Your task to perform on an android device: turn off notifications in google photos Image 0: 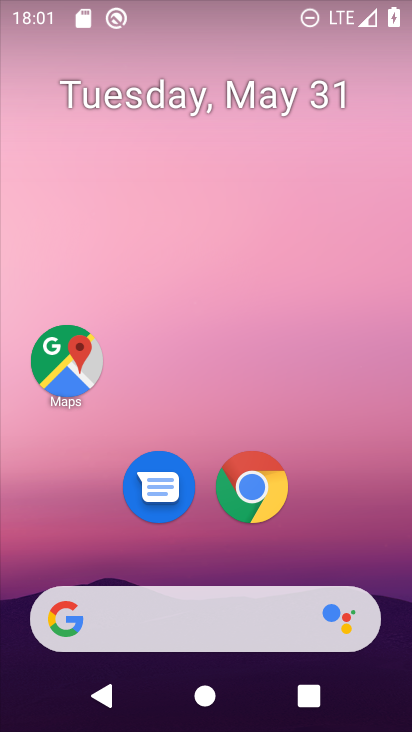
Step 0: click (232, 104)
Your task to perform on an android device: turn off notifications in google photos Image 1: 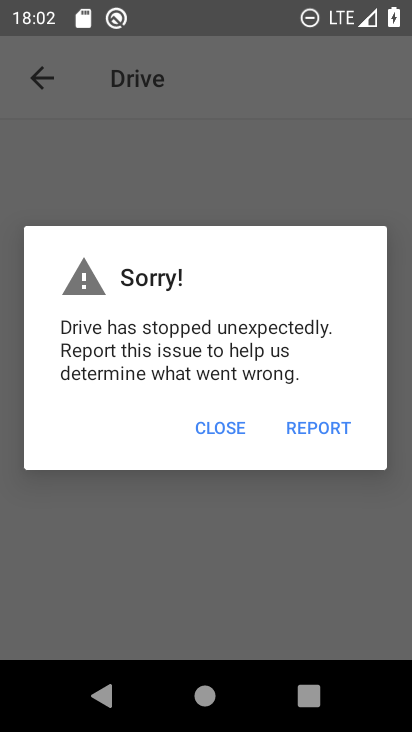
Step 1: press home button
Your task to perform on an android device: turn off notifications in google photos Image 2: 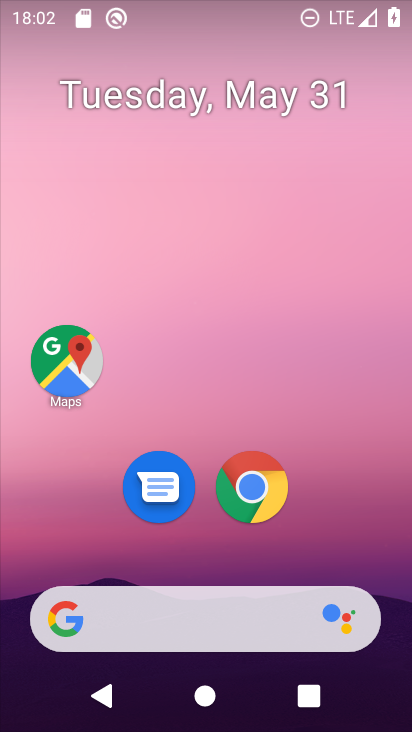
Step 2: drag from (345, 510) to (228, 126)
Your task to perform on an android device: turn off notifications in google photos Image 3: 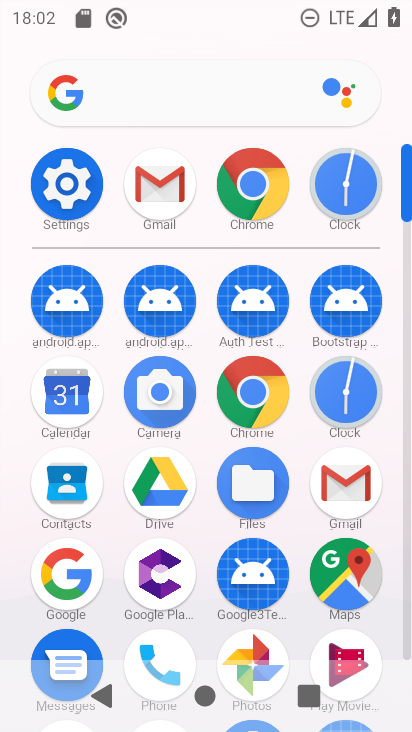
Step 3: click (251, 640)
Your task to perform on an android device: turn off notifications in google photos Image 4: 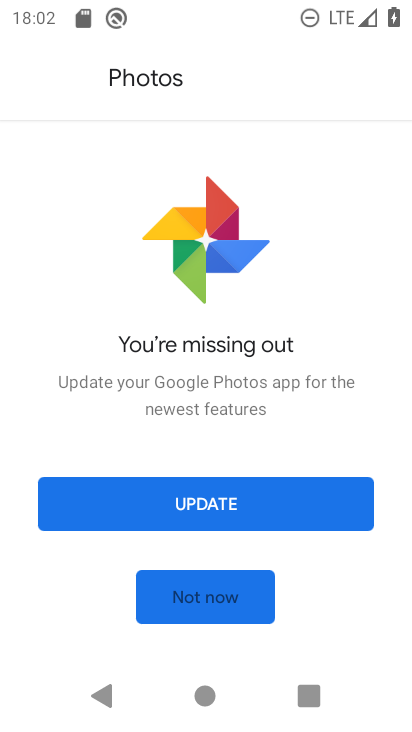
Step 4: click (217, 507)
Your task to perform on an android device: turn off notifications in google photos Image 5: 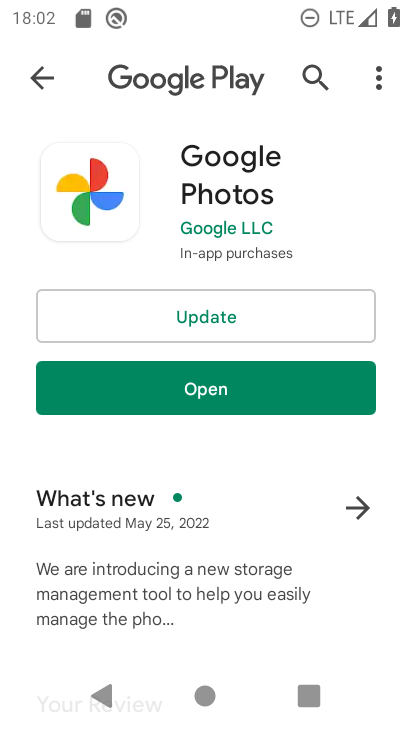
Step 5: click (208, 288)
Your task to perform on an android device: turn off notifications in google photos Image 6: 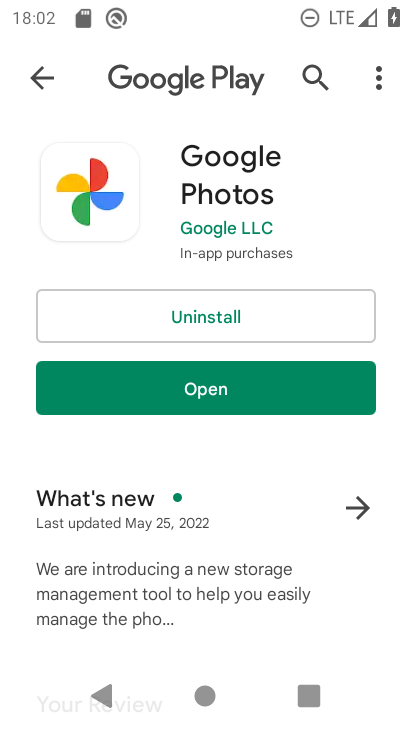
Step 6: click (215, 398)
Your task to perform on an android device: turn off notifications in google photos Image 7: 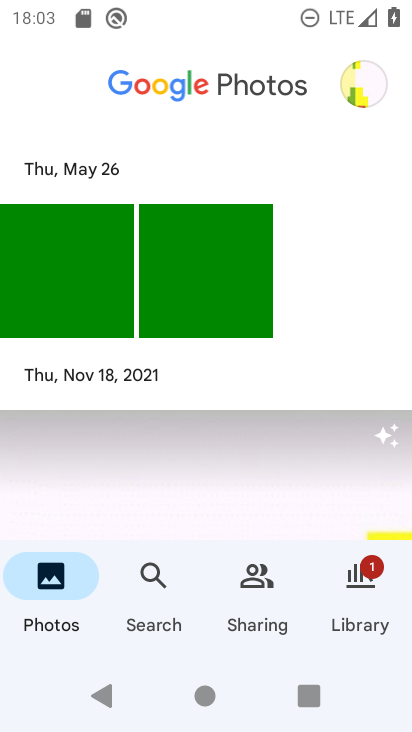
Step 7: click (359, 591)
Your task to perform on an android device: turn off notifications in google photos Image 8: 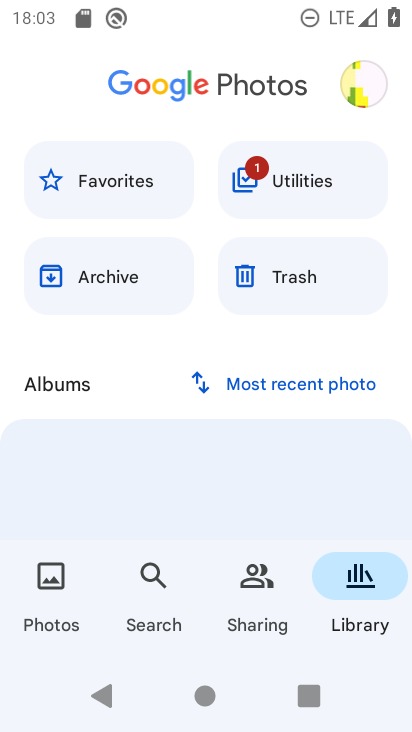
Step 8: click (356, 81)
Your task to perform on an android device: turn off notifications in google photos Image 9: 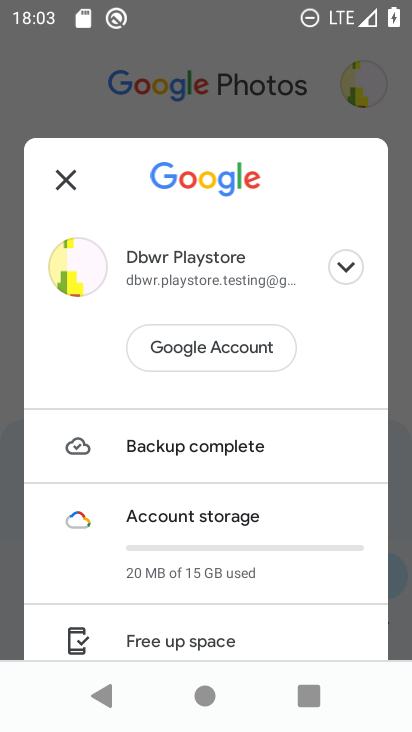
Step 9: drag from (273, 591) to (236, 311)
Your task to perform on an android device: turn off notifications in google photos Image 10: 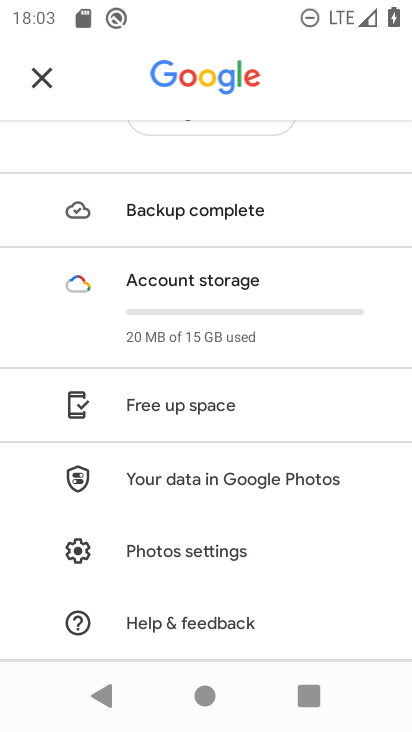
Step 10: click (165, 552)
Your task to perform on an android device: turn off notifications in google photos Image 11: 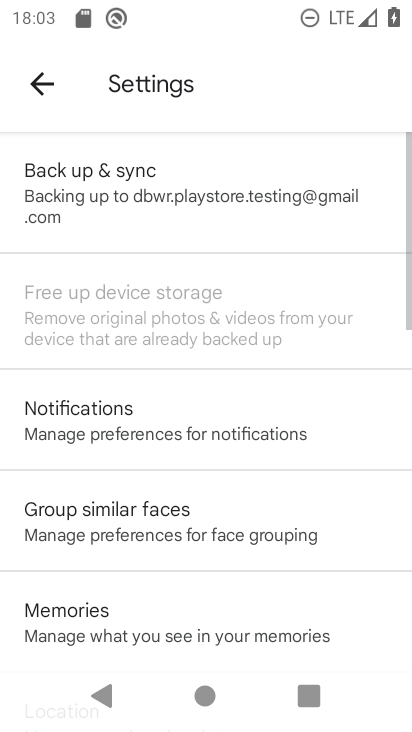
Step 11: drag from (182, 563) to (158, 400)
Your task to perform on an android device: turn off notifications in google photos Image 12: 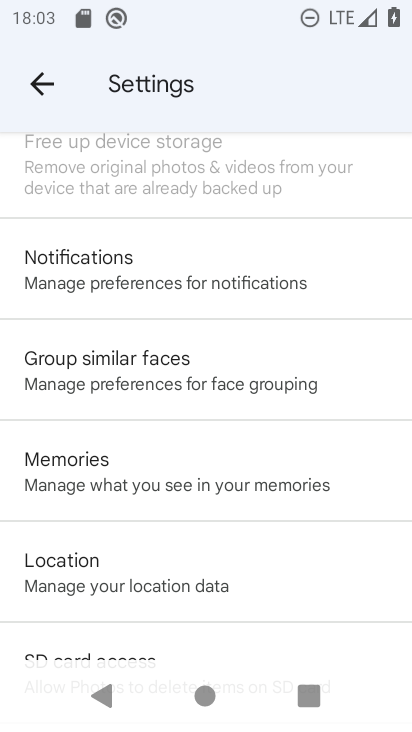
Step 12: click (89, 257)
Your task to perform on an android device: turn off notifications in google photos Image 13: 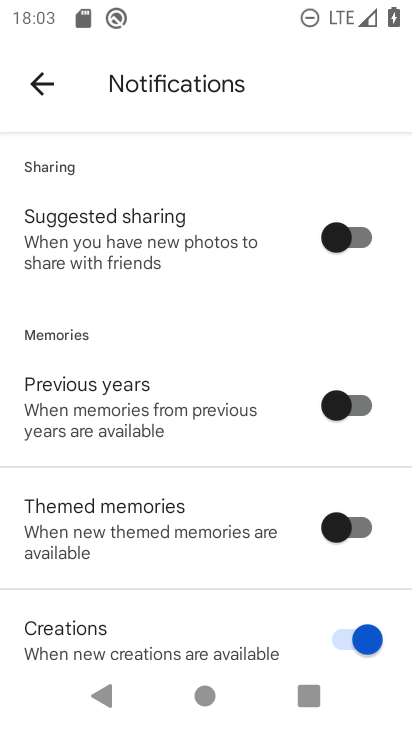
Step 13: drag from (208, 560) to (169, 256)
Your task to perform on an android device: turn off notifications in google photos Image 14: 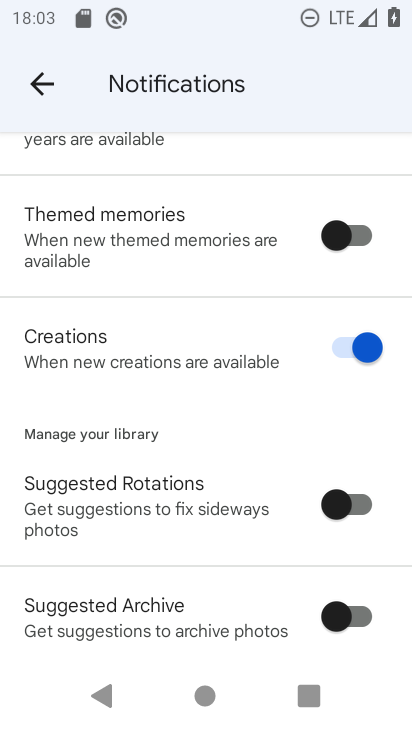
Step 14: drag from (186, 407) to (151, 142)
Your task to perform on an android device: turn off notifications in google photos Image 15: 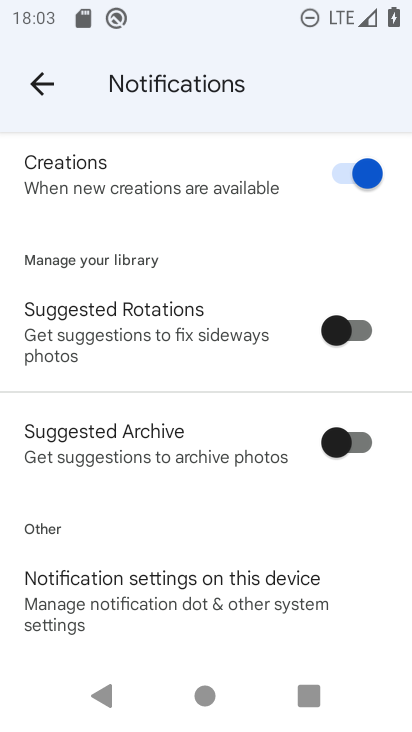
Step 15: click (167, 588)
Your task to perform on an android device: turn off notifications in google photos Image 16: 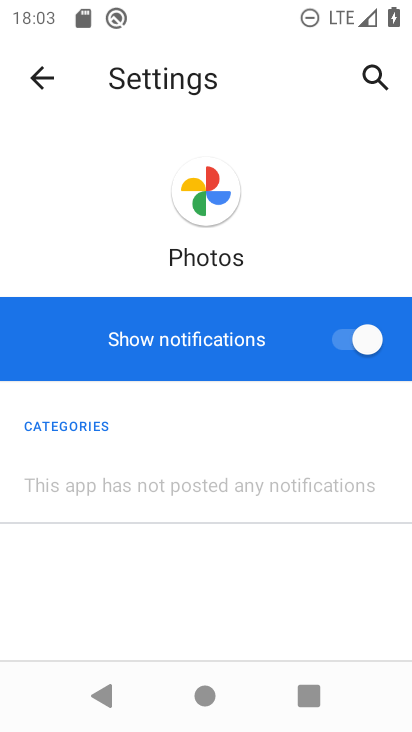
Step 16: click (361, 342)
Your task to perform on an android device: turn off notifications in google photos Image 17: 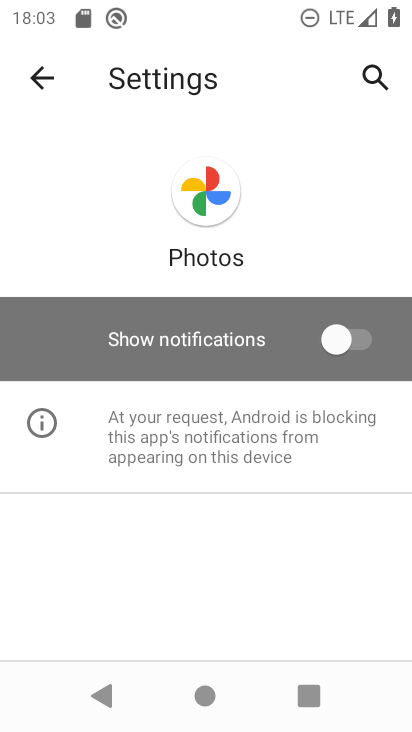
Step 17: task complete